Your task to perform on an android device: Do I have any events this weekend? Image 0: 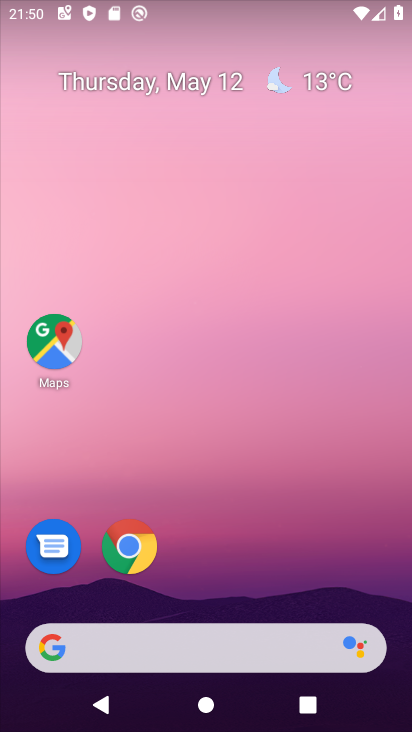
Step 0: drag from (296, 557) to (299, 22)
Your task to perform on an android device: Do I have any events this weekend? Image 1: 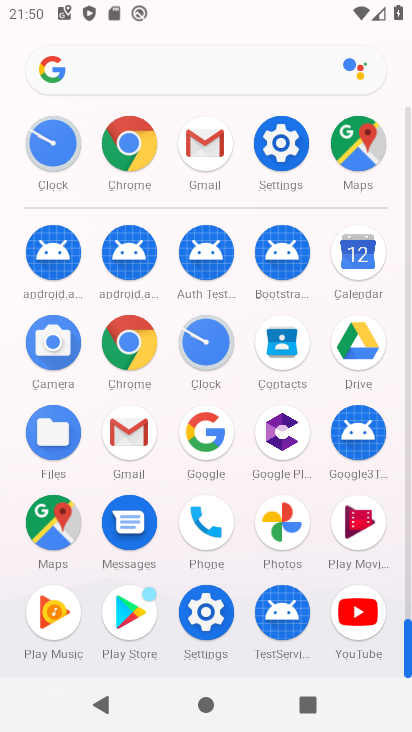
Step 1: click (361, 246)
Your task to perform on an android device: Do I have any events this weekend? Image 2: 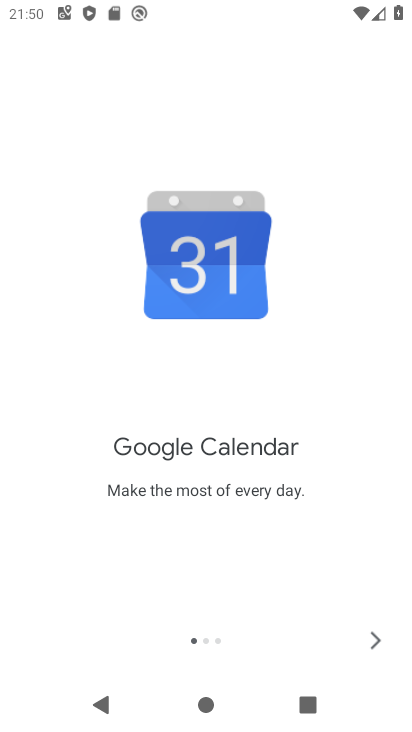
Step 2: click (380, 638)
Your task to perform on an android device: Do I have any events this weekend? Image 3: 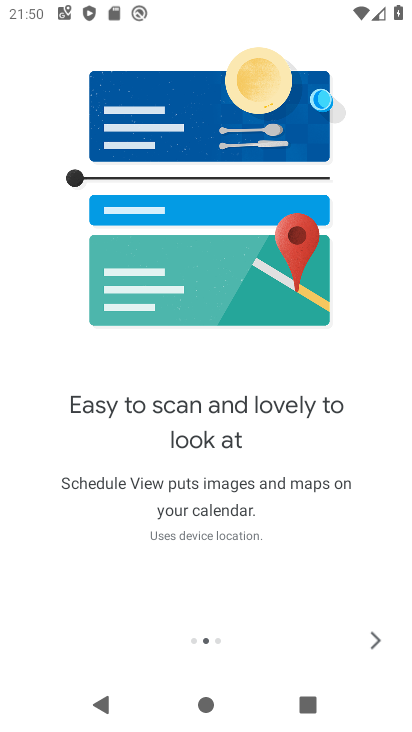
Step 3: click (380, 638)
Your task to perform on an android device: Do I have any events this weekend? Image 4: 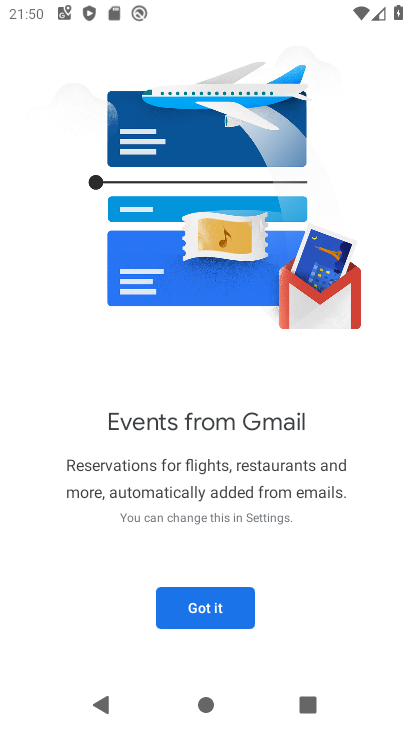
Step 4: click (230, 596)
Your task to perform on an android device: Do I have any events this weekend? Image 5: 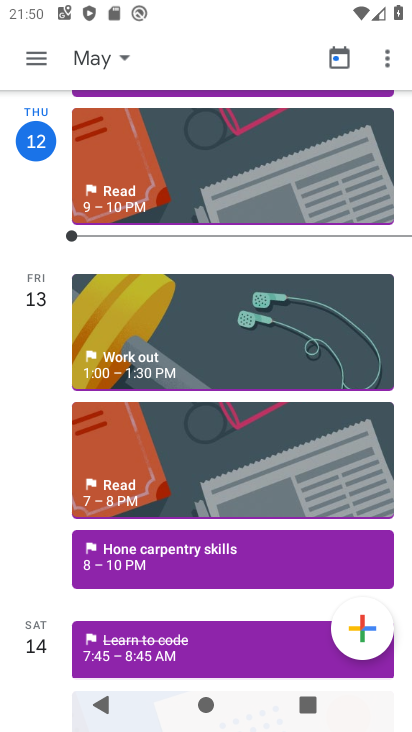
Step 5: task complete